Your task to perform on an android device: turn off location history Image 0: 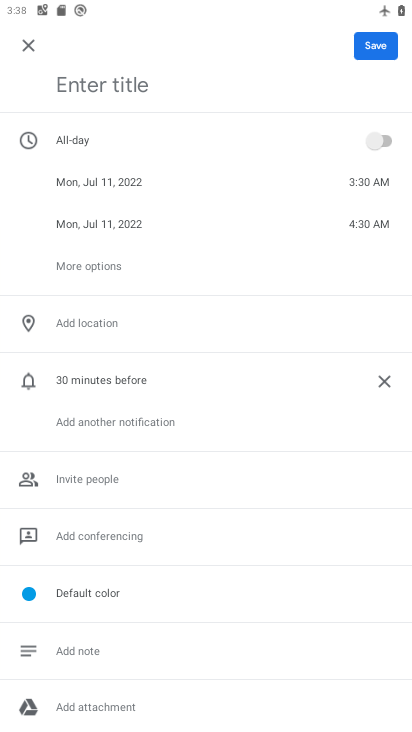
Step 0: press home button
Your task to perform on an android device: turn off location history Image 1: 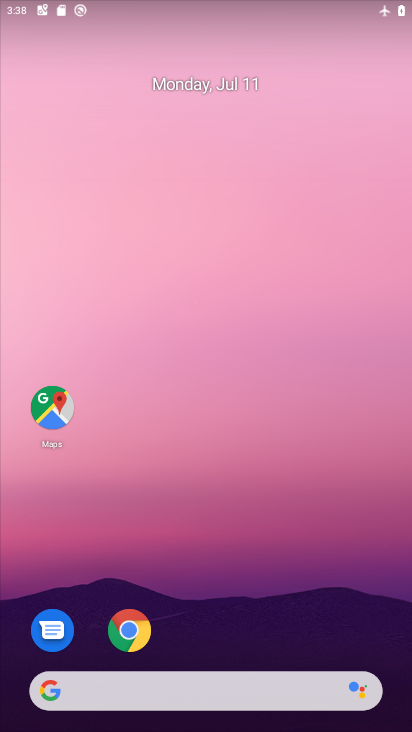
Step 1: drag from (254, 635) to (226, 34)
Your task to perform on an android device: turn off location history Image 2: 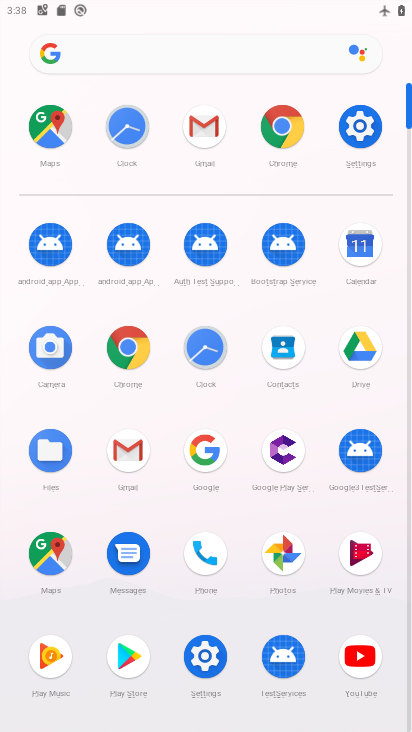
Step 2: click (351, 127)
Your task to perform on an android device: turn off location history Image 3: 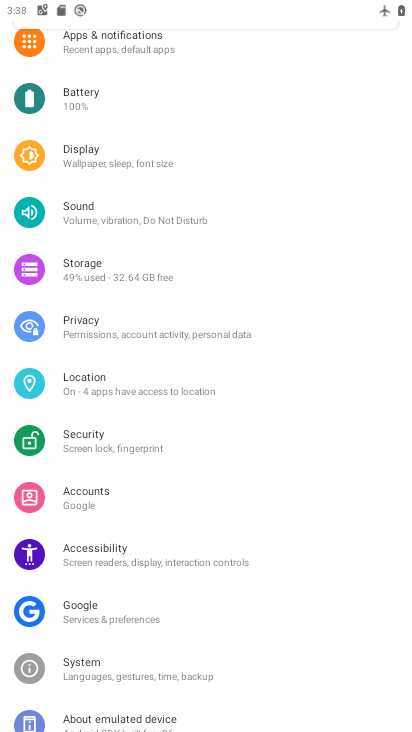
Step 3: click (198, 397)
Your task to perform on an android device: turn off location history Image 4: 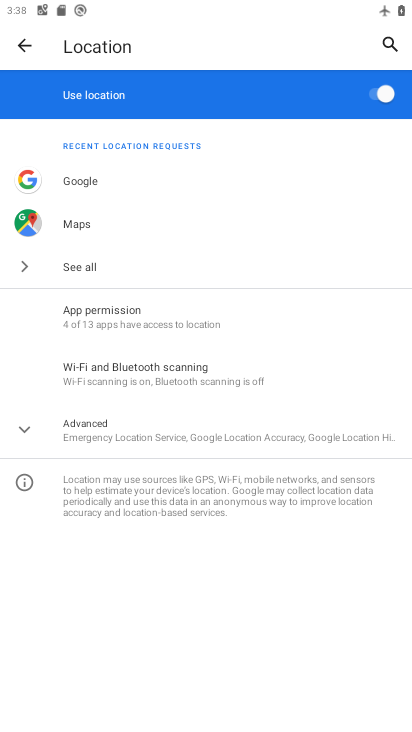
Step 4: click (159, 414)
Your task to perform on an android device: turn off location history Image 5: 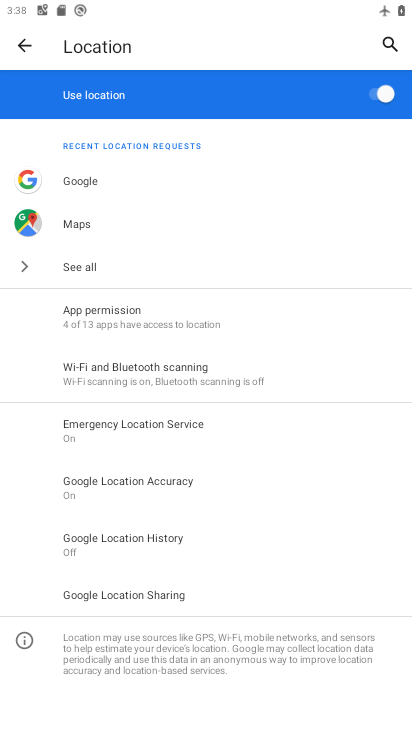
Step 5: click (184, 536)
Your task to perform on an android device: turn off location history Image 6: 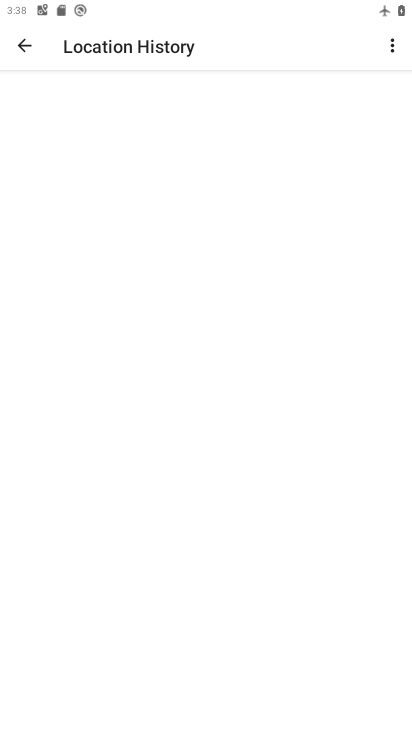
Step 6: task complete